Your task to perform on an android device: What's on my calendar tomorrow? Image 0: 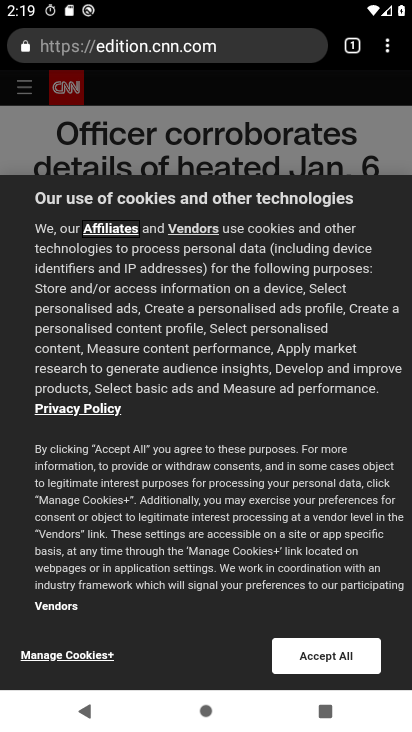
Step 0: press home button
Your task to perform on an android device: What's on my calendar tomorrow? Image 1: 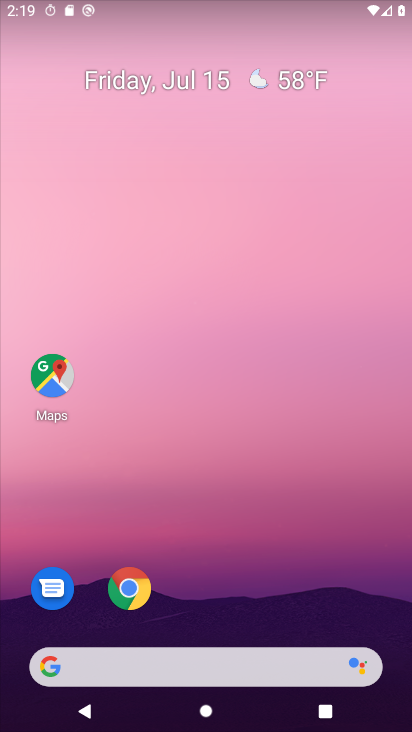
Step 1: drag from (293, 613) to (224, 54)
Your task to perform on an android device: What's on my calendar tomorrow? Image 2: 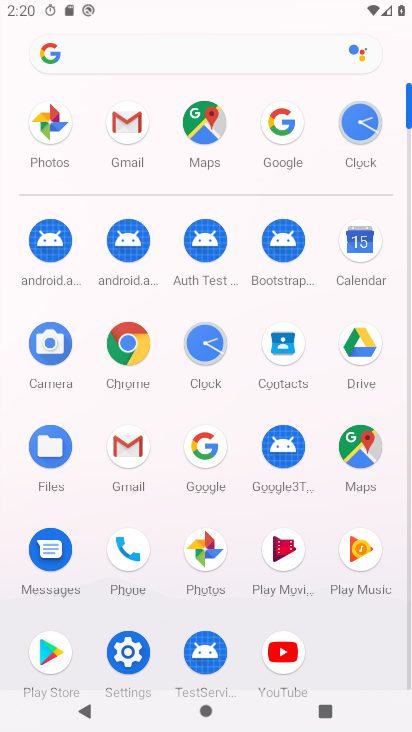
Step 2: click (351, 229)
Your task to perform on an android device: What's on my calendar tomorrow? Image 3: 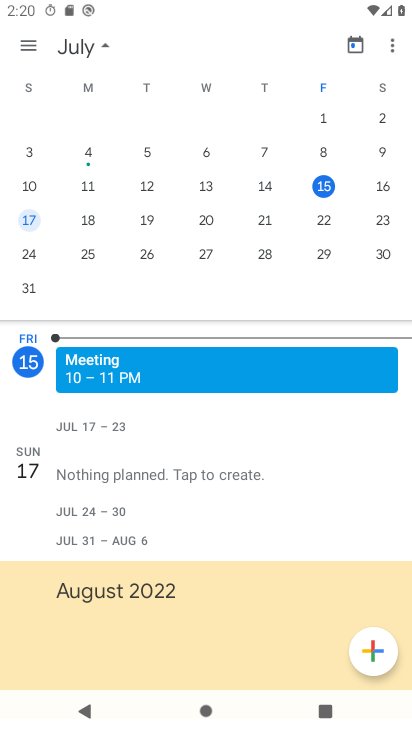
Step 3: click (375, 184)
Your task to perform on an android device: What's on my calendar tomorrow? Image 4: 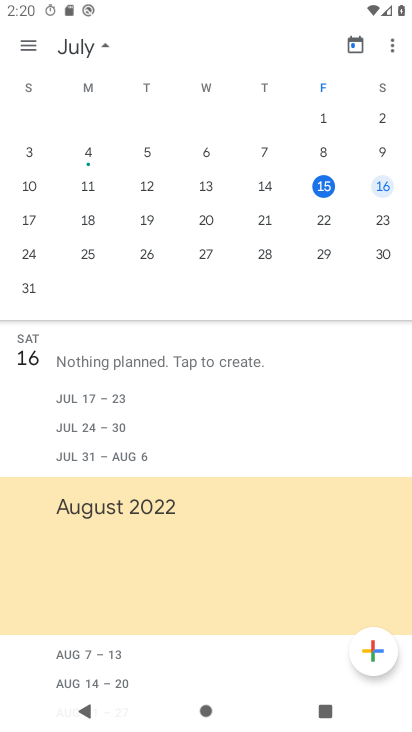
Step 4: task complete